Your task to perform on an android device: What's the weather today? Image 0: 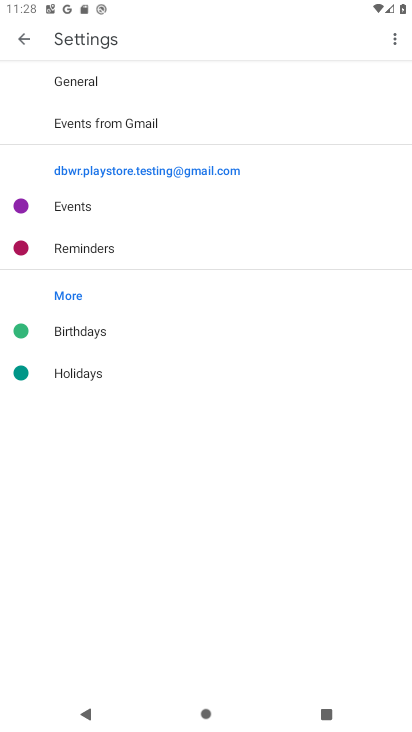
Step 0: press home button
Your task to perform on an android device: What's the weather today? Image 1: 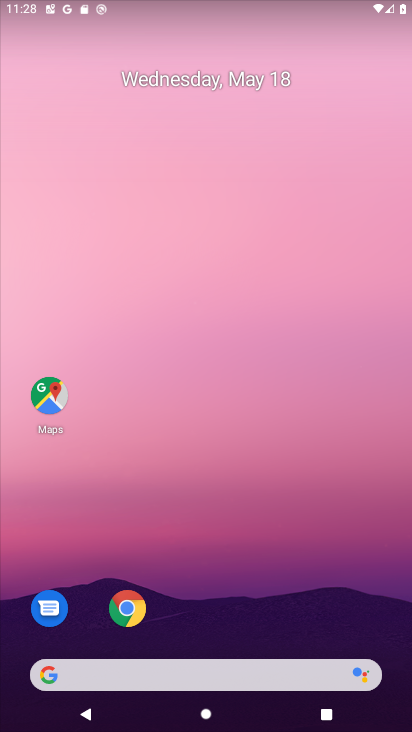
Step 1: click (118, 609)
Your task to perform on an android device: What's the weather today? Image 2: 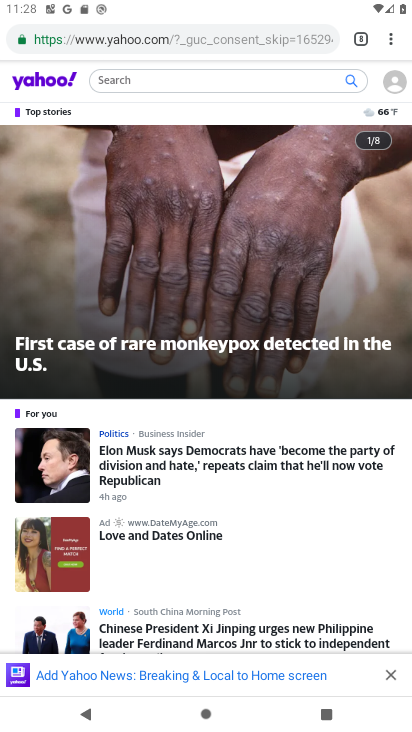
Step 2: click (353, 37)
Your task to perform on an android device: What's the weather today? Image 3: 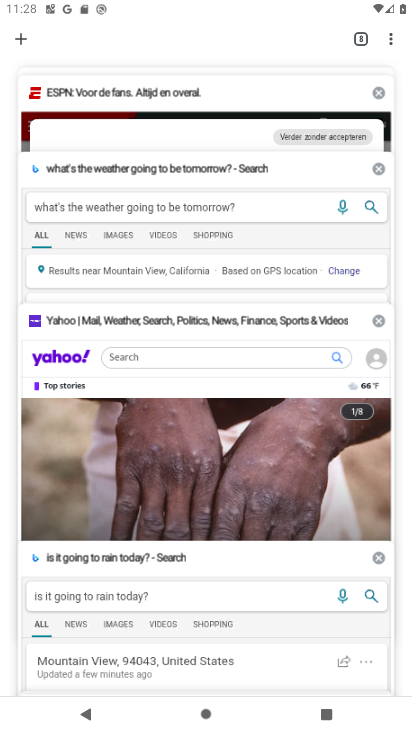
Step 3: drag from (210, 153) to (190, 104)
Your task to perform on an android device: What's the weather today? Image 4: 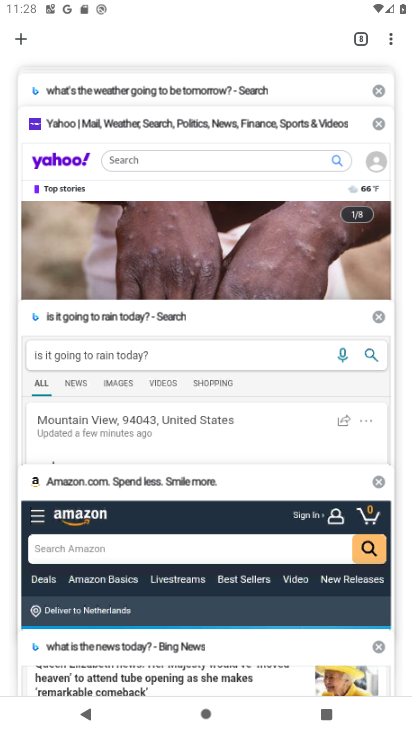
Step 4: drag from (147, 585) to (134, 330)
Your task to perform on an android device: What's the weather today? Image 5: 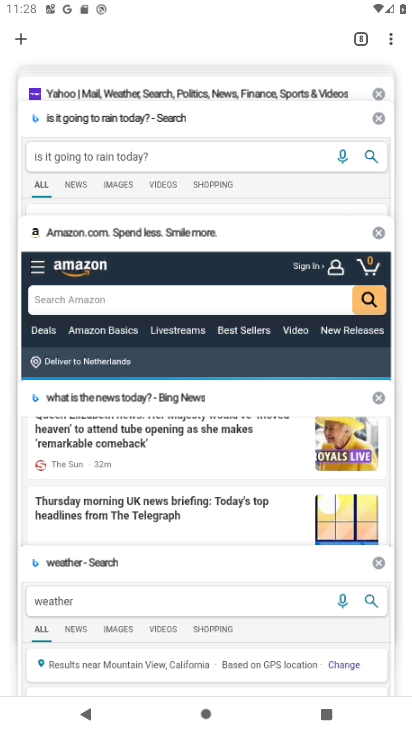
Step 5: click (20, 44)
Your task to perform on an android device: What's the weather today? Image 6: 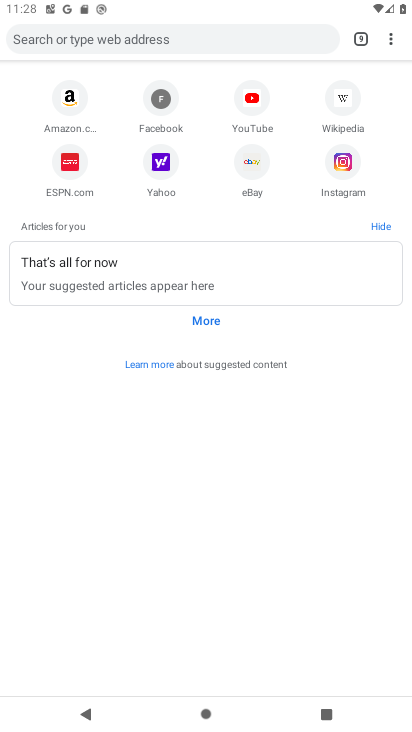
Step 6: click (18, 41)
Your task to perform on an android device: What's the weather today? Image 7: 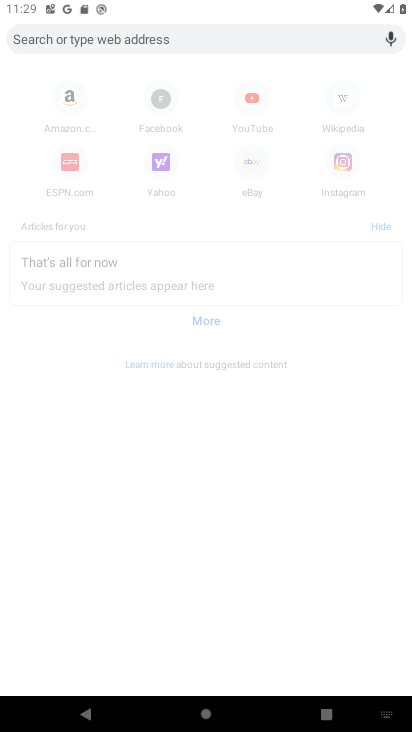
Step 7: type "what's the weather today?"
Your task to perform on an android device: What's the weather today? Image 8: 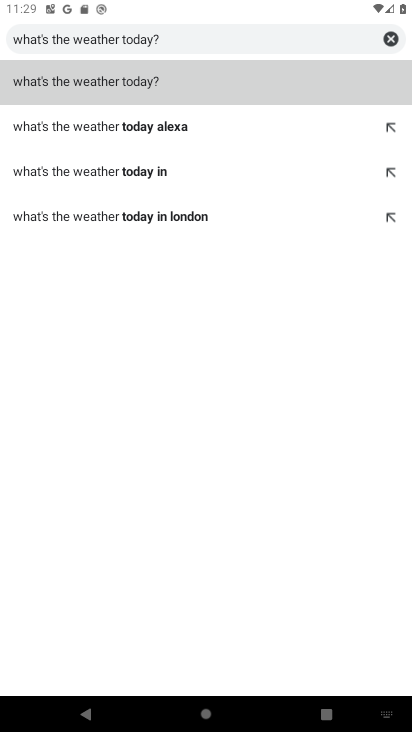
Step 8: click (131, 82)
Your task to perform on an android device: What's the weather today? Image 9: 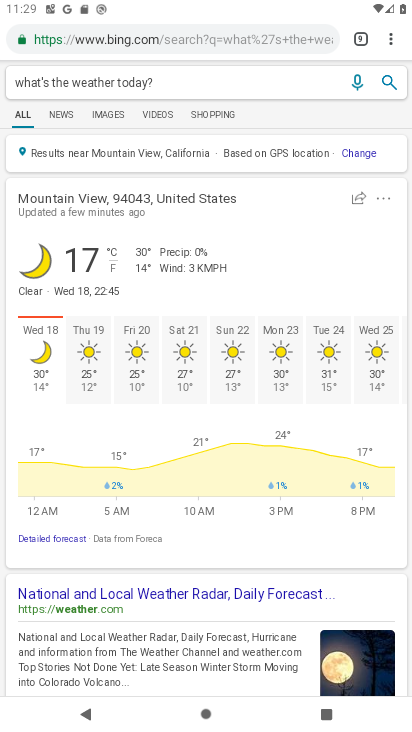
Step 9: task complete